Your task to perform on an android device: Open eBay Image 0: 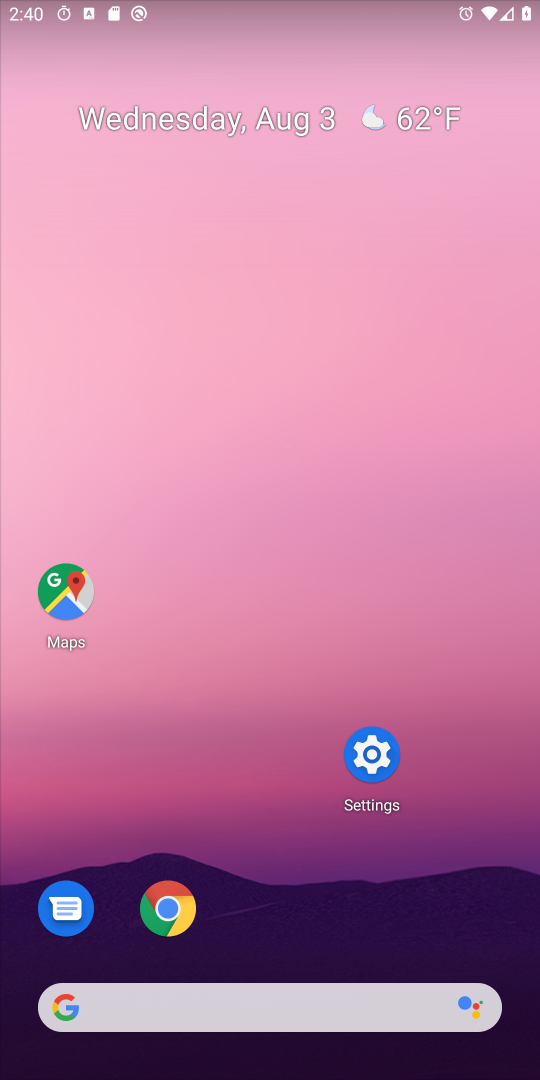
Step 0: drag from (294, 693) to (244, 58)
Your task to perform on an android device: Open eBay Image 1: 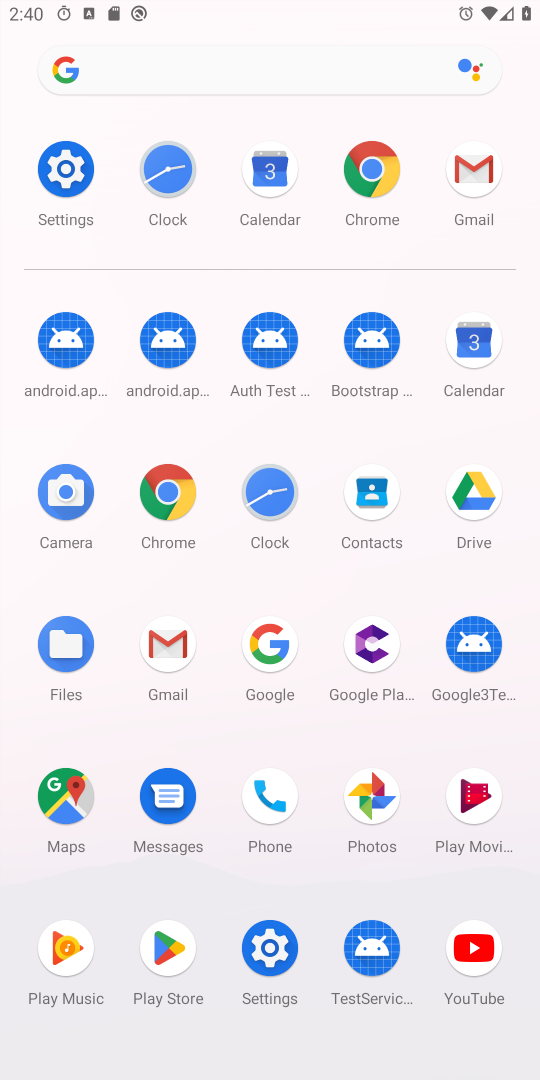
Step 1: click (171, 510)
Your task to perform on an android device: Open eBay Image 2: 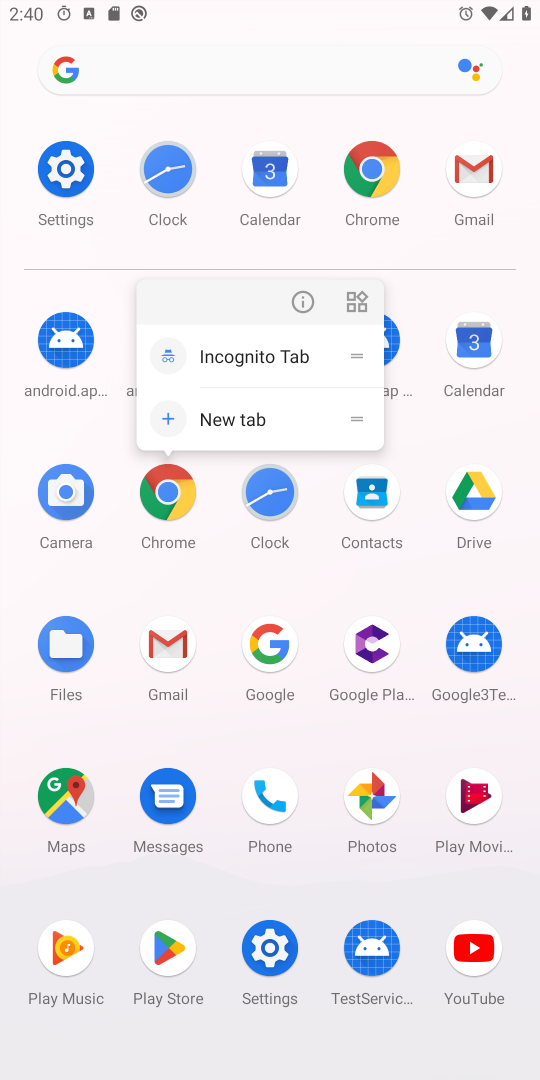
Step 2: click (147, 506)
Your task to perform on an android device: Open eBay Image 3: 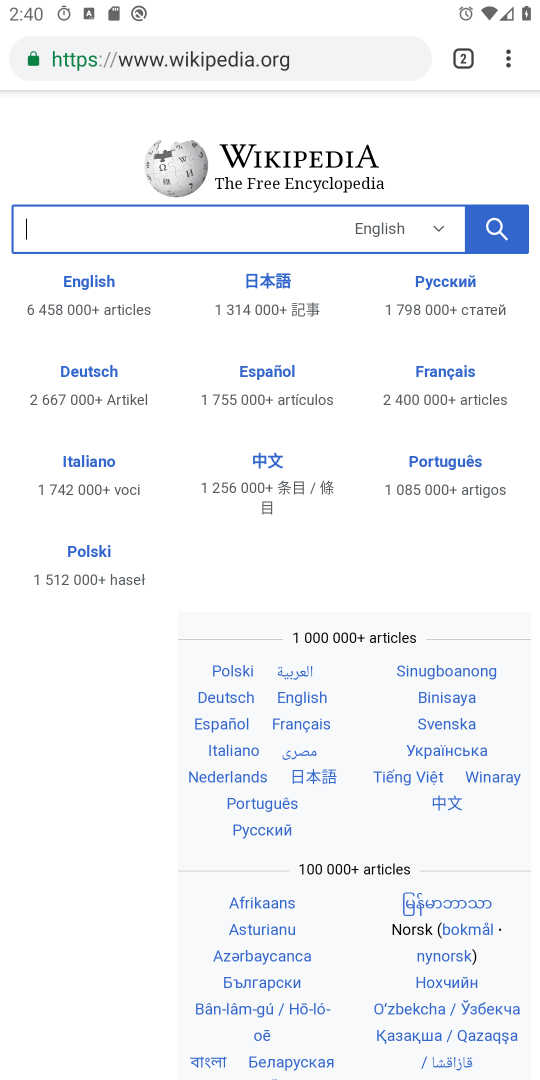
Step 3: click (457, 68)
Your task to perform on an android device: Open eBay Image 4: 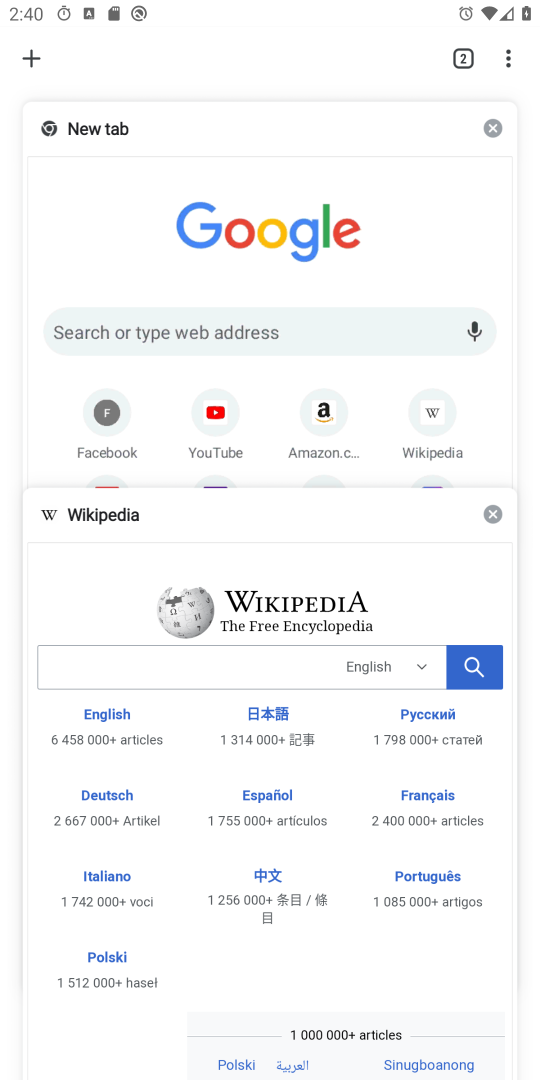
Step 4: click (103, 207)
Your task to perform on an android device: Open eBay Image 5: 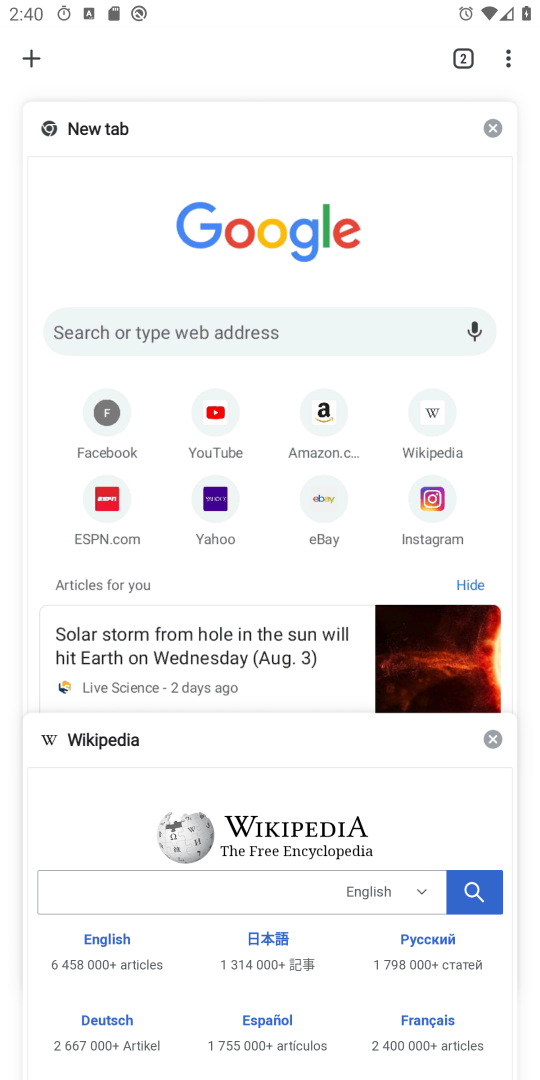
Step 5: click (275, 243)
Your task to perform on an android device: Open eBay Image 6: 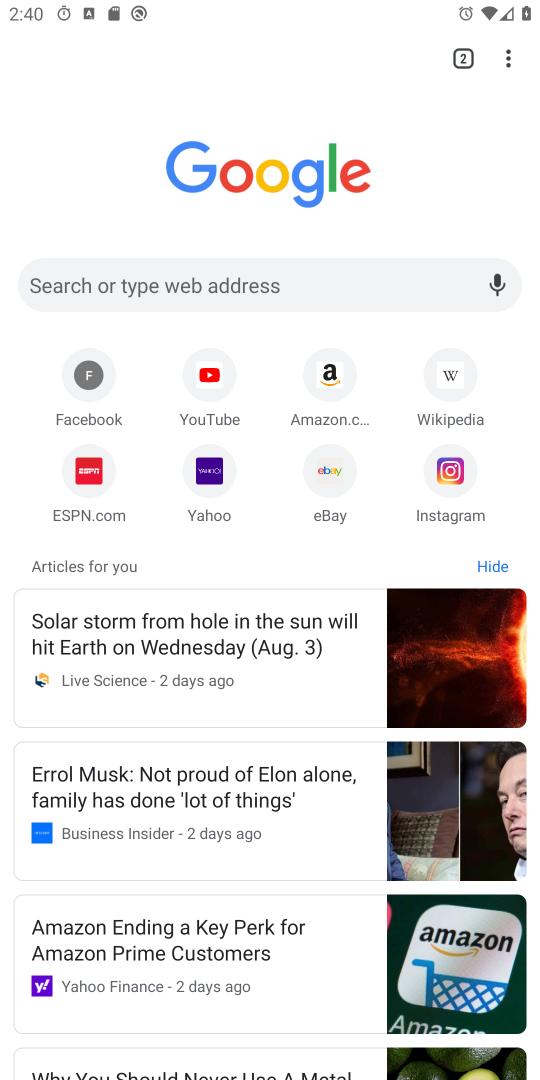
Step 6: click (333, 473)
Your task to perform on an android device: Open eBay Image 7: 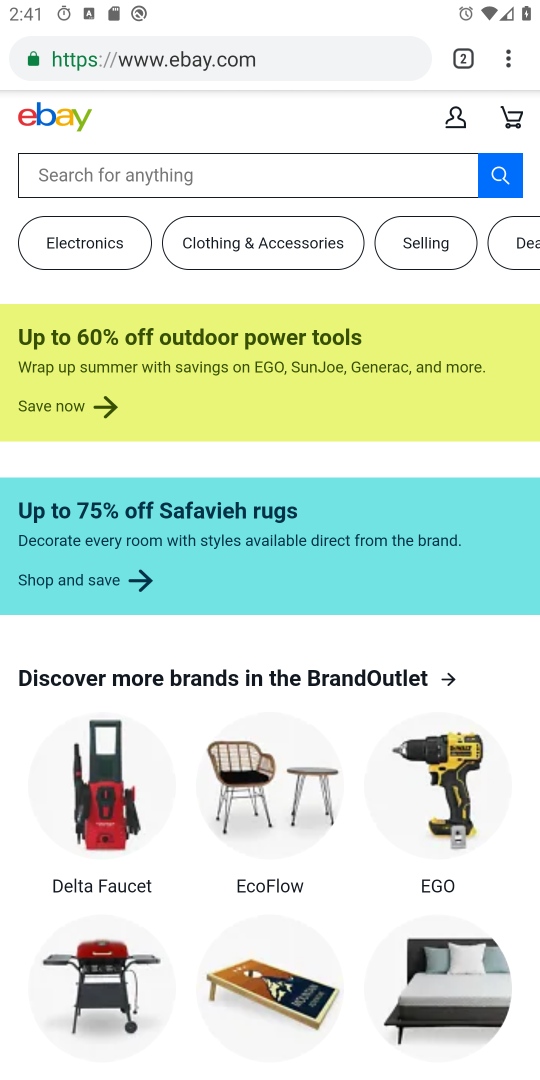
Step 7: task complete